Your task to perform on an android device: Open the Play Movies app and select the watchlist tab. Image 0: 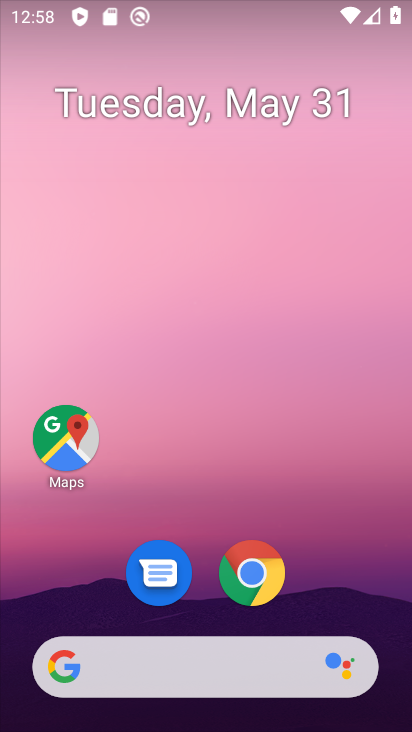
Step 0: drag from (362, 574) to (350, 200)
Your task to perform on an android device: Open the Play Movies app and select the watchlist tab. Image 1: 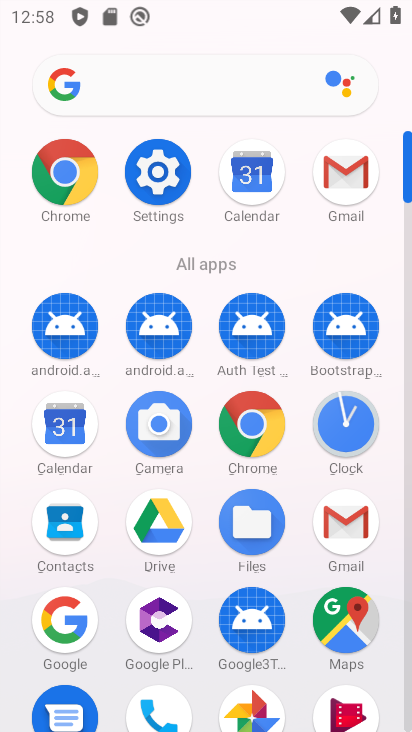
Step 1: drag from (290, 670) to (294, 489)
Your task to perform on an android device: Open the Play Movies app and select the watchlist tab. Image 2: 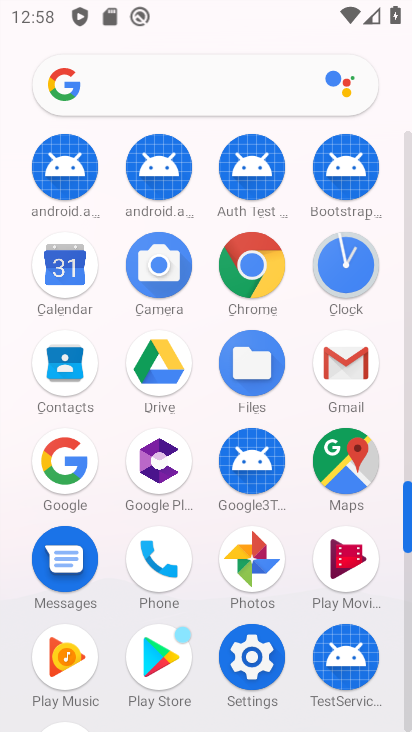
Step 2: click (359, 566)
Your task to perform on an android device: Open the Play Movies app and select the watchlist tab. Image 3: 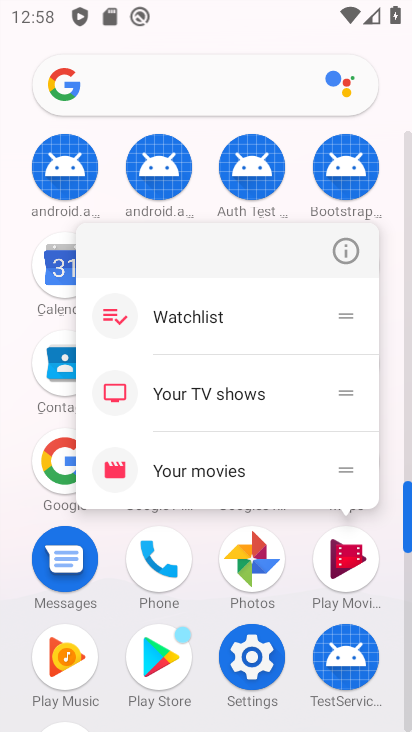
Step 3: click (361, 565)
Your task to perform on an android device: Open the Play Movies app and select the watchlist tab. Image 4: 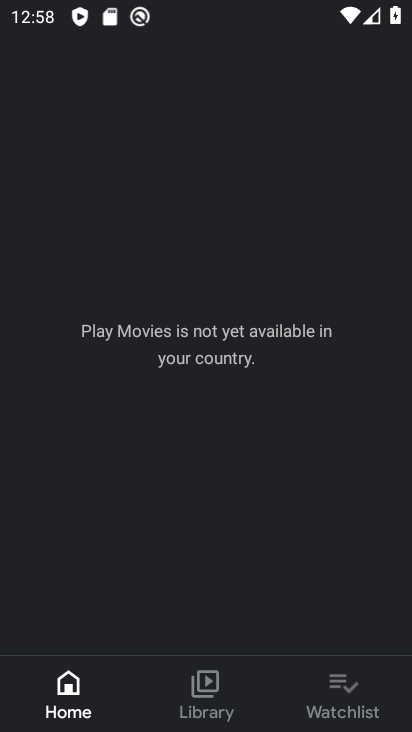
Step 4: click (351, 702)
Your task to perform on an android device: Open the Play Movies app and select the watchlist tab. Image 5: 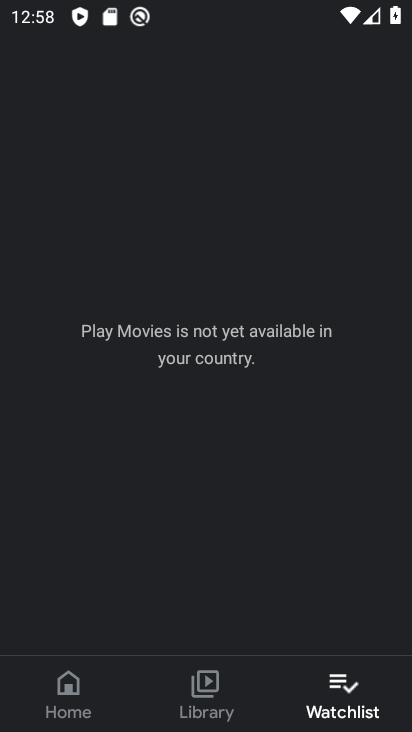
Step 5: task complete